Your task to perform on an android device: all mails in gmail Image 0: 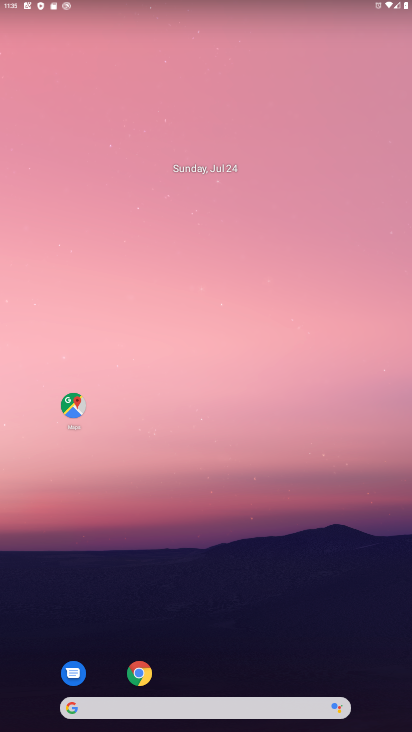
Step 0: drag from (252, 682) to (305, 26)
Your task to perform on an android device: all mails in gmail Image 1: 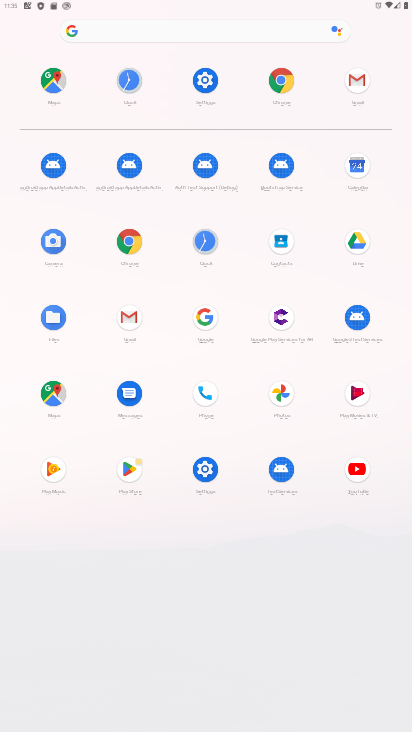
Step 1: click (355, 85)
Your task to perform on an android device: all mails in gmail Image 2: 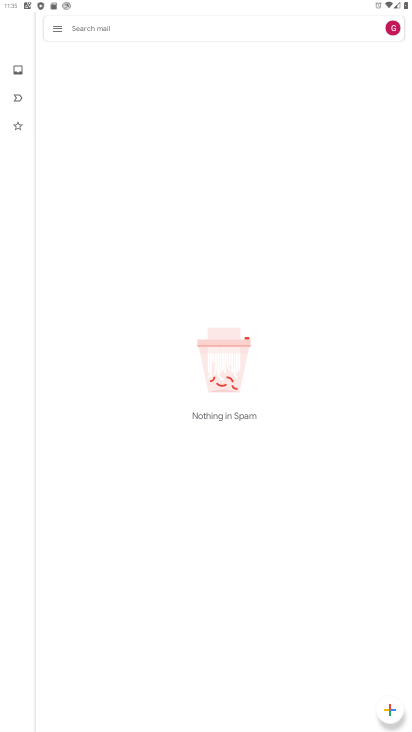
Step 2: click (51, 23)
Your task to perform on an android device: all mails in gmail Image 3: 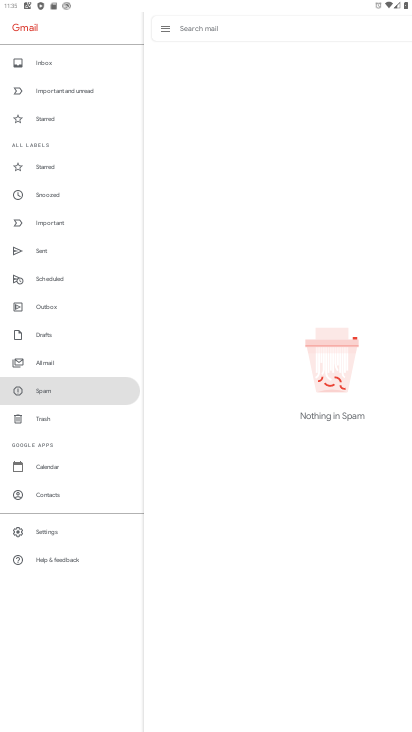
Step 3: click (60, 370)
Your task to perform on an android device: all mails in gmail Image 4: 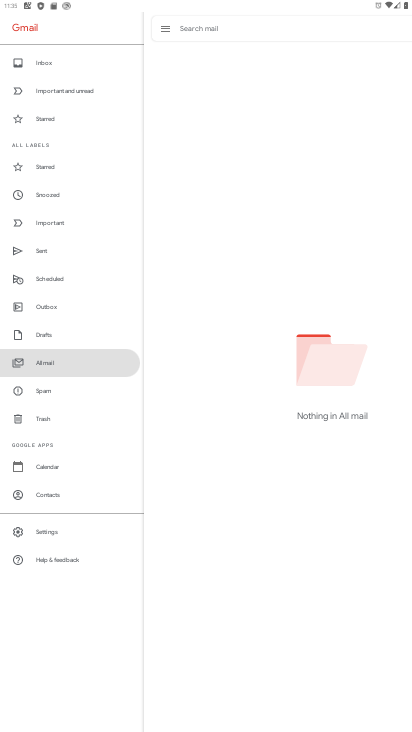
Step 4: task complete